Your task to perform on an android device: Open calendar and show me the second week of next month Image 0: 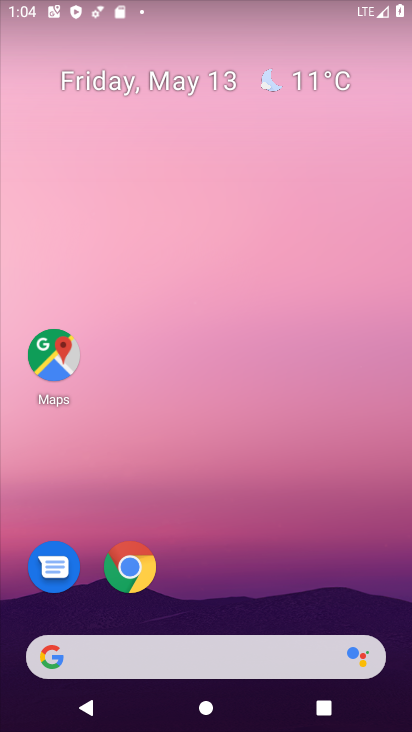
Step 0: drag from (201, 627) to (219, 182)
Your task to perform on an android device: Open calendar and show me the second week of next month Image 1: 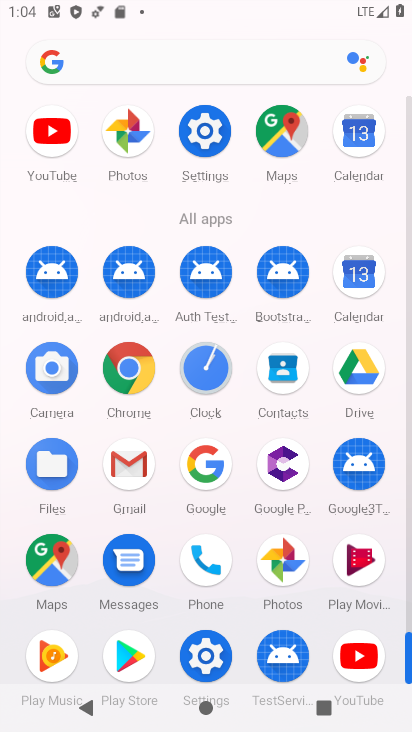
Step 1: click (349, 269)
Your task to perform on an android device: Open calendar and show me the second week of next month Image 2: 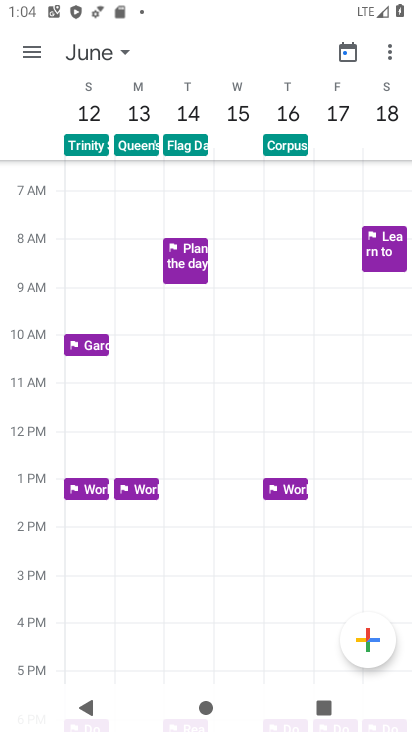
Step 2: click (45, 54)
Your task to perform on an android device: Open calendar and show me the second week of next month Image 3: 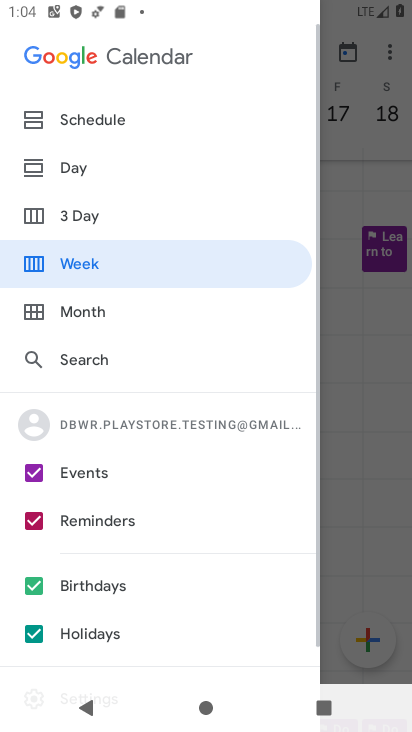
Step 3: click (119, 272)
Your task to perform on an android device: Open calendar and show me the second week of next month Image 4: 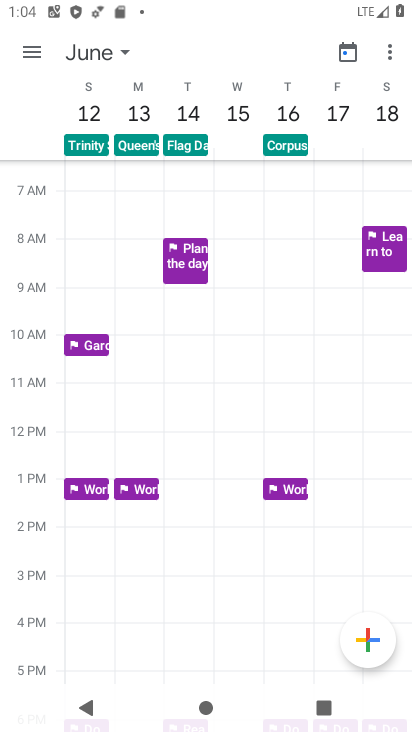
Step 4: click (99, 56)
Your task to perform on an android device: Open calendar and show me the second week of next month Image 5: 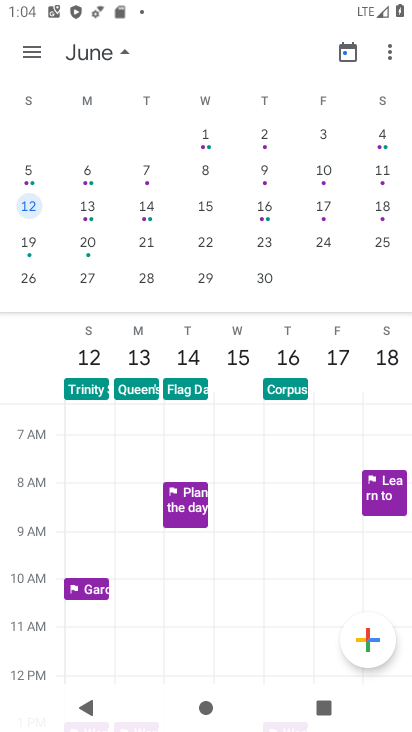
Step 5: task complete